Your task to perform on an android device: Open location settings Image 0: 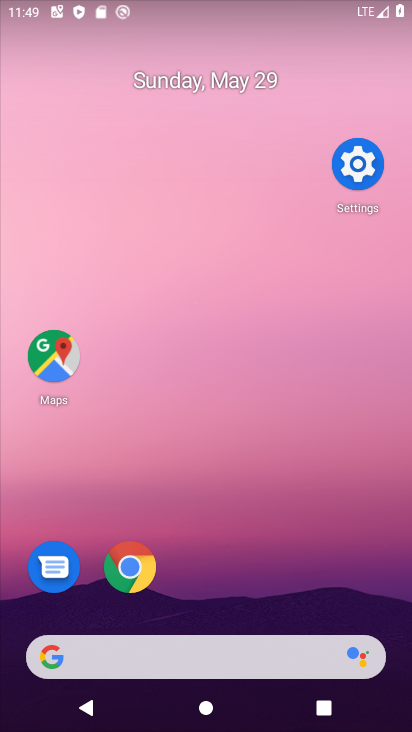
Step 0: drag from (271, 557) to (263, 202)
Your task to perform on an android device: Open location settings Image 1: 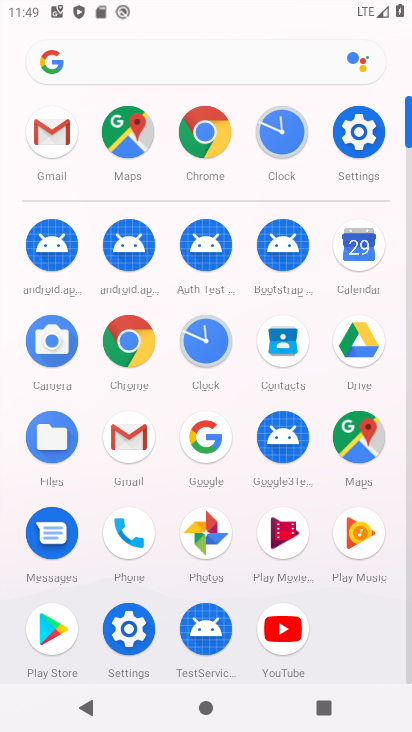
Step 1: click (370, 140)
Your task to perform on an android device: Open location settings Image 2: 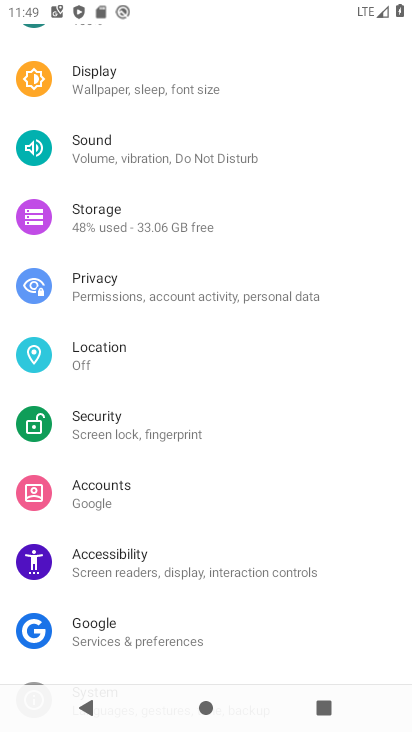
Step 2: click (138, 367)
Your task to perform on an android device: Open location settings Image 3: 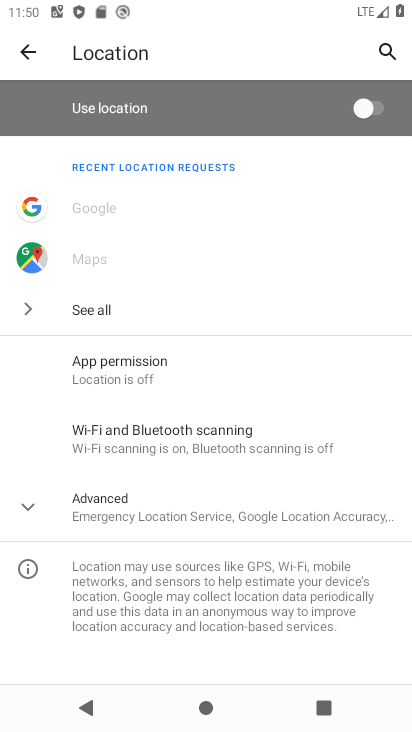
Step 3: click (185, 509)
Your task to perform on an android device: Open location settings Image 4: 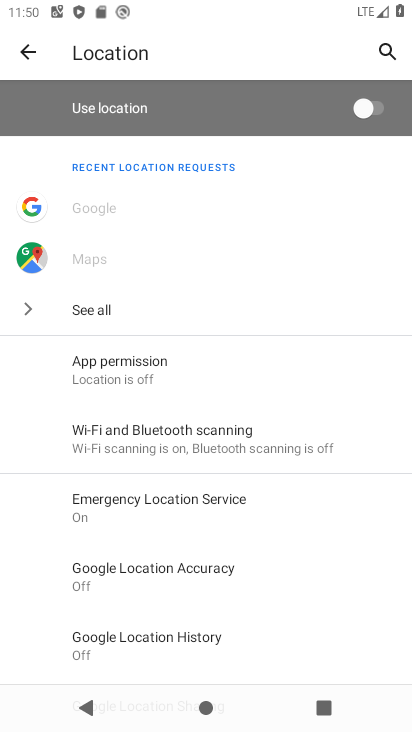
Step 4: task complete